Your task to perform on an android device: manage bookmarks in the chrome app Image 0: 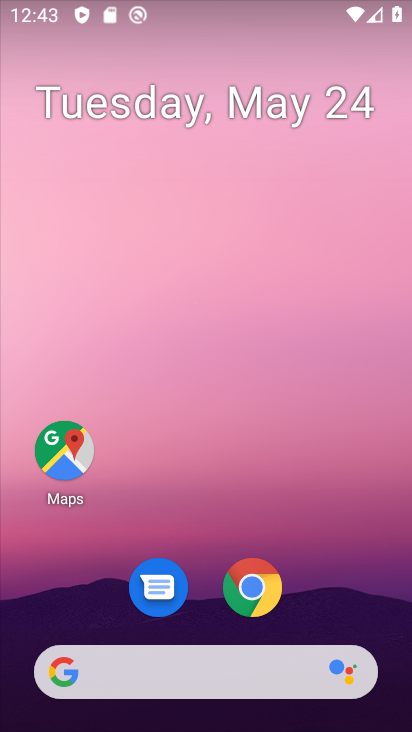
Step 0: click (242, 583)
Your task to perform on an android device: manage bookmarks in the chrome app Image 1: 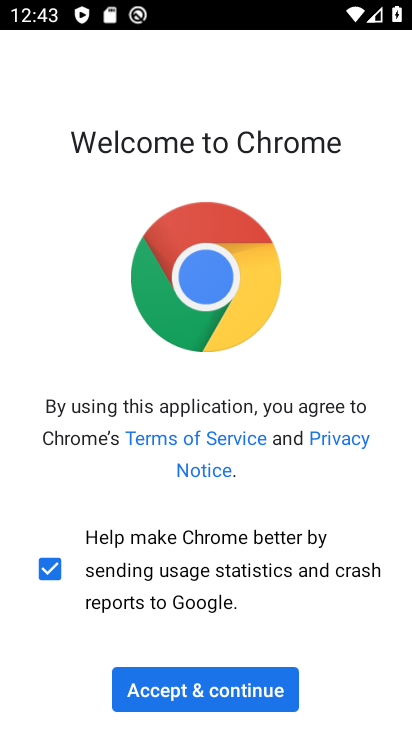
Step 1: click (238, 684)
Your task to perform on an android device: manage bookmarks in the chrome app Image 2: 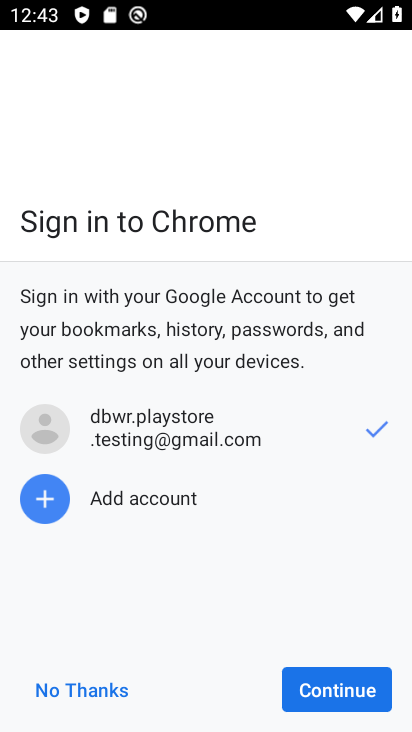
Step 2: click (323, 673)
Your task to perform on an android device: manage bookmarks in the chrome app Image 3: 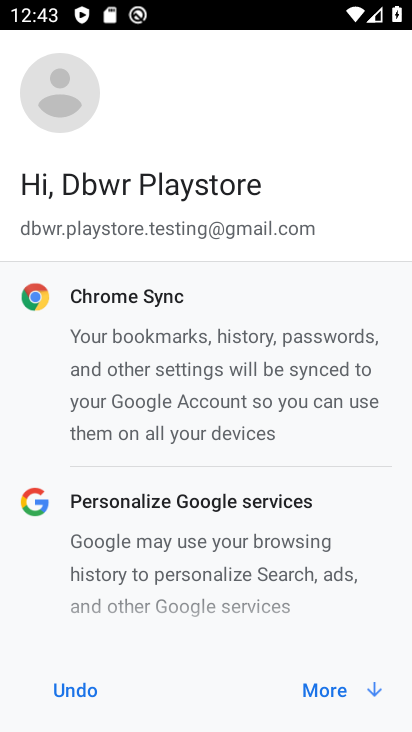
Step 3: click (336, 669)
Your task to perform on an android device: manage bookmarks in the chrome app Image 4: 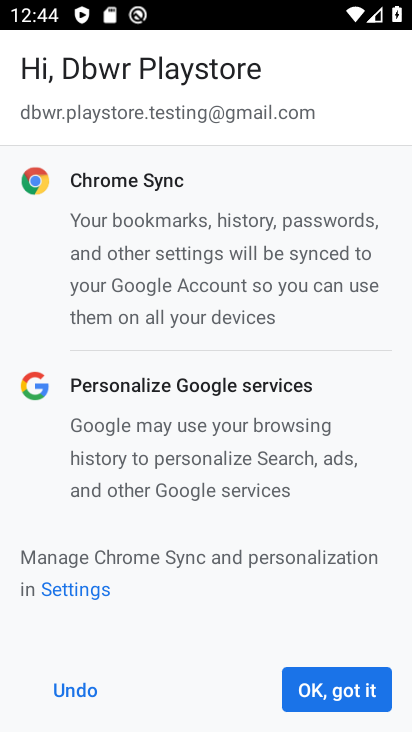
Step 4: click (336, 669)
Your task to perform on an android device: manage bookmarks in the chrome app Image 5: 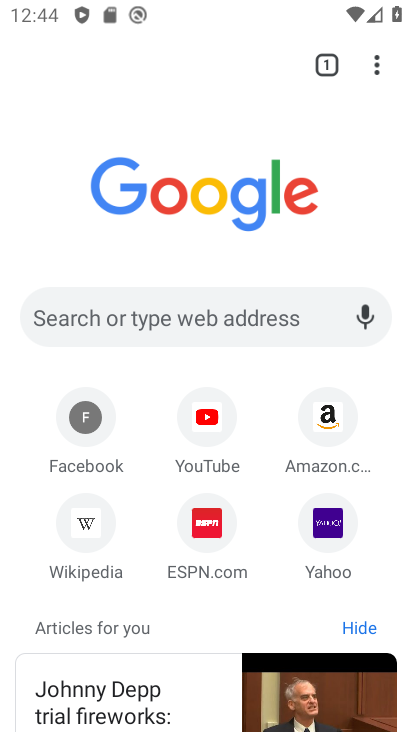
Step 5: task complete